Your task to perform on an android device: Go to sound settings Image 0: 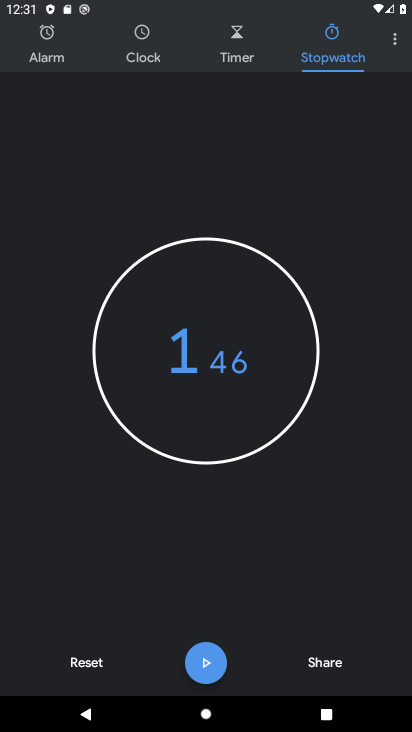
Step 0: click (397, 42)
Your task to perform on an android device: Go to sound settings Image 1: 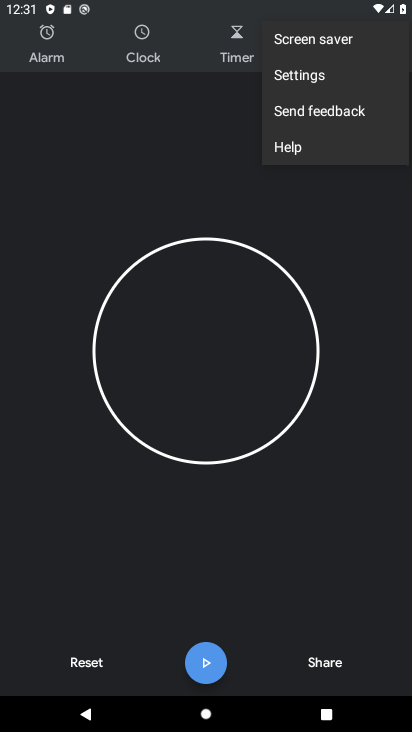
Step 1: press home button
Your task to perform on an android device: Go to sound settings Image 2: 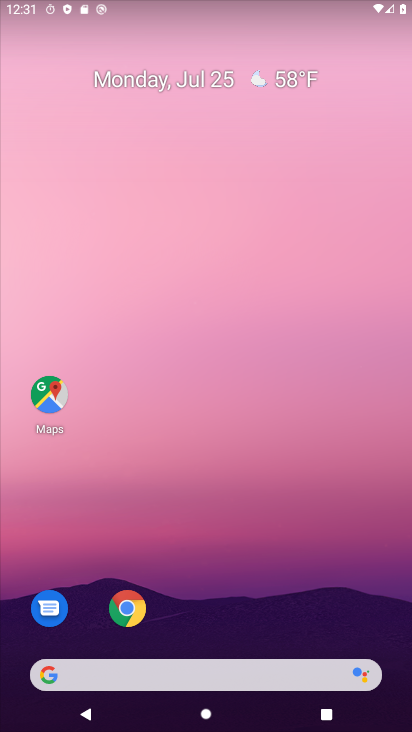
Step 2: drag from (314, 614) to (249, 72)
Your task to perform on an android device: Go to sound settings Image 3: 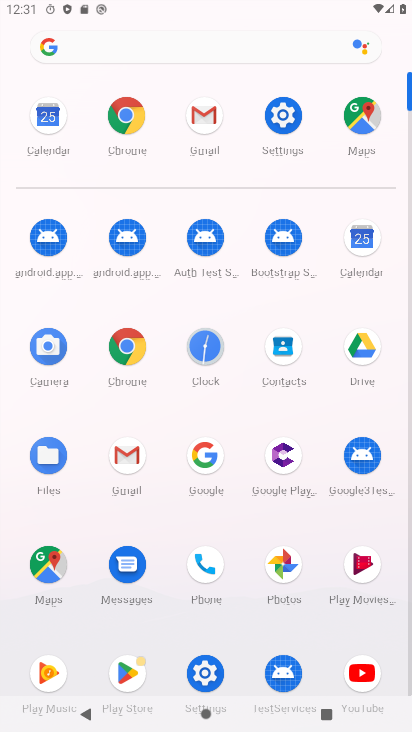
Step 3: click (286, 115)
Your task to perform on an android device: Go to sound settings Image 4: 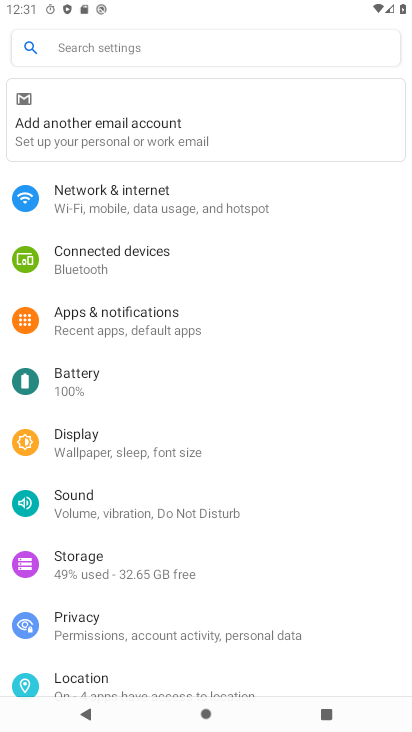
Step 4: click (140, 500)
Your task to perform on an android device: Go to sound settings Image 5: 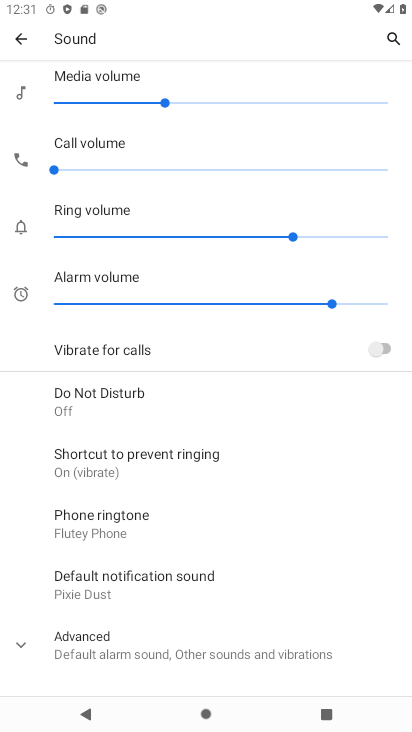
Step 5: task complete